Your task to perform on an android device: turn pop-ups on in chrome Image 0: 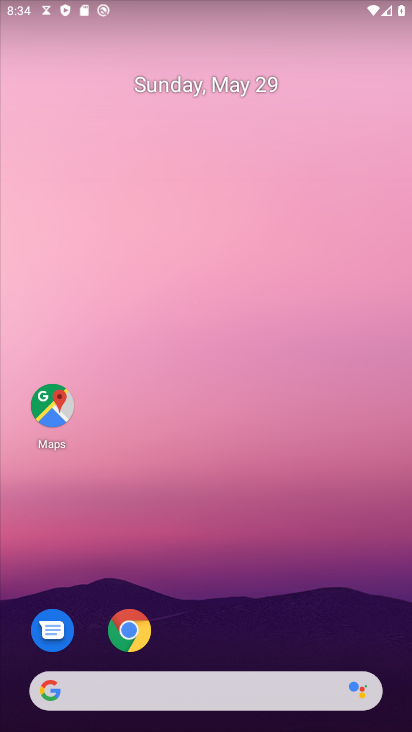
Step 0: click (139, 630)
Your task to perform on an android device: turn pop-ups on in chrome Image 1: 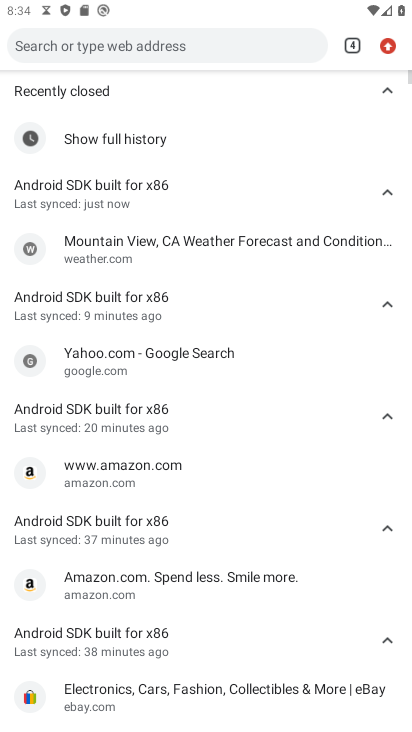
Step 1: click (391, 42)
Your task to perform on an android device: turn pop-ups on in chrome Image 2: 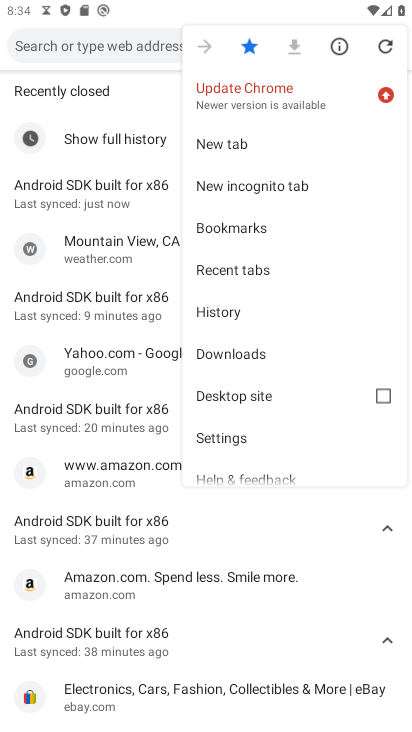
Step 2: click (204, 437)
Your task to perform on an android device: turn pop-ups on in chrome Image 3: 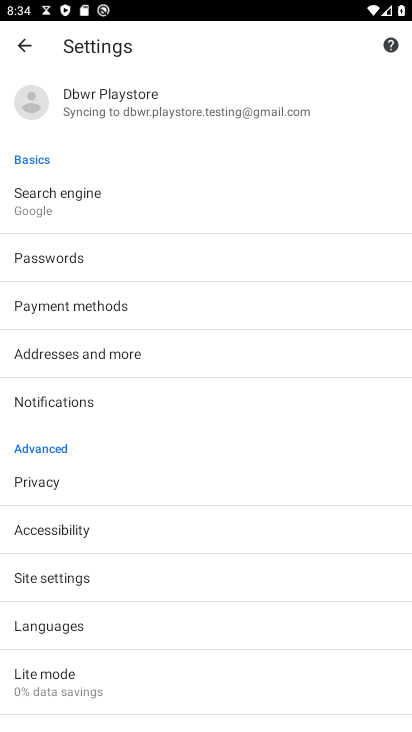
Step 3: click (94, 572)
Your task to perform on an android device: turn pop-ups on in chrome Image 4: 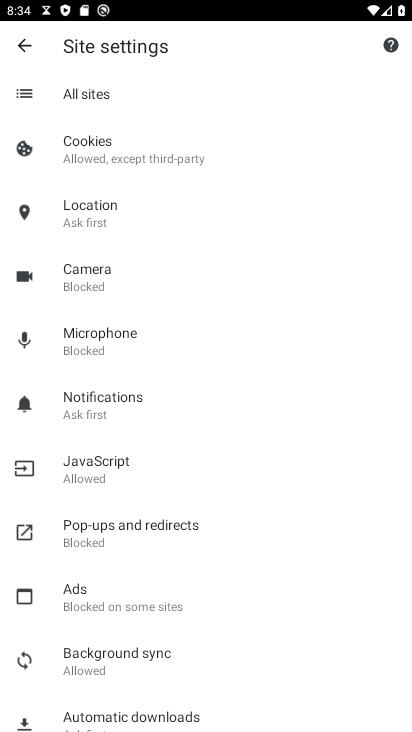
Step 4: click (120, 537)
Your task to perform on an android device: turn pop-ups on in chrome Image 5: 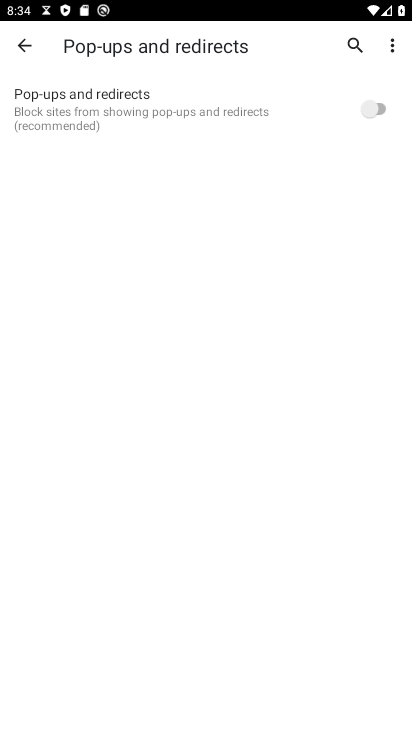
Step 5: click (378, 103)
Your task to perform on an android device: turn pop-ups on in chrome Image 6: 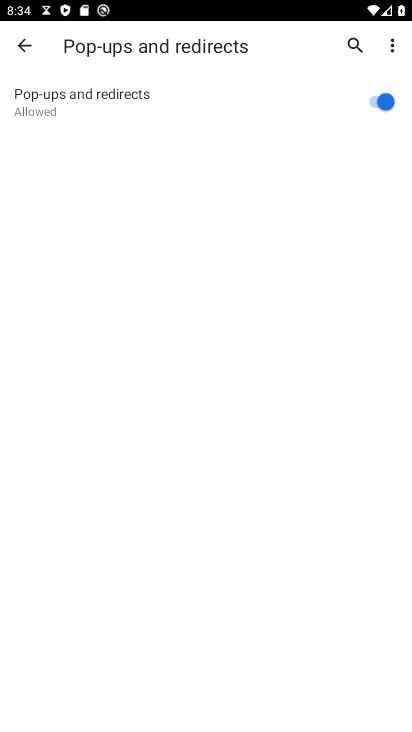
Step 6: task complete